Your task to perform on an android device: allow cookies in the chrome app Image 0: 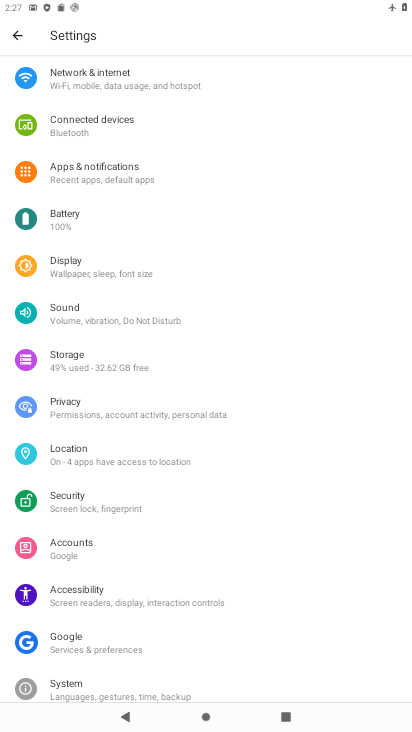
Step 0: drag from (108, 560) to (125, 267)
Your task to perform on an android device: allow cookies in the chrome app Image 1: 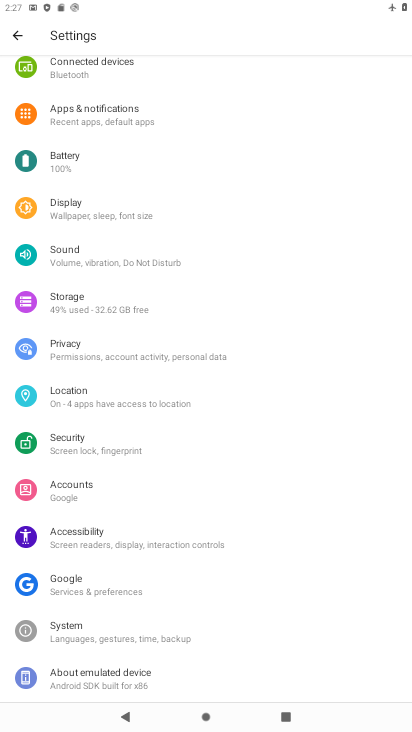
Step 1: press home button
Your task to perform on an android device: allow cookies in the chrome app Image 2: 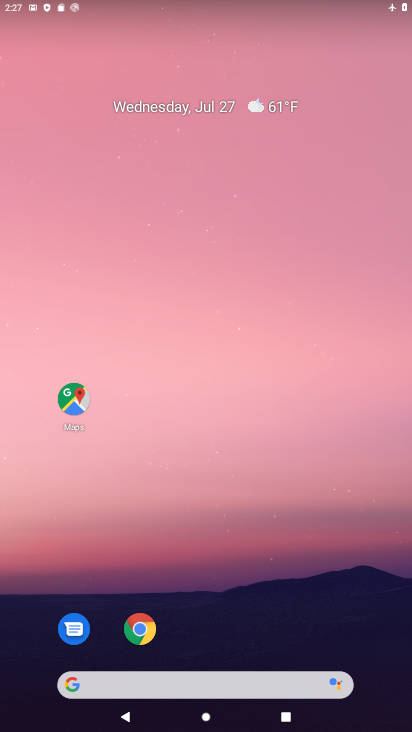
Step 2: drag from (203, 642) to (266, 273)
Your task to perform on an android device: allow cookies in the chrome app Image 3: 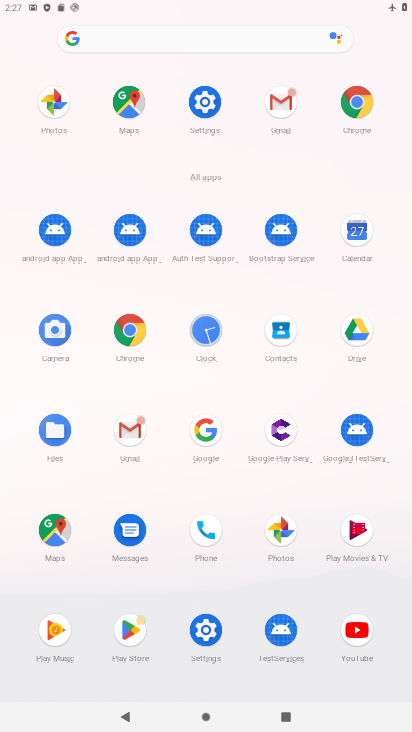
Step 3: click (131, 311)
Your task to perform on an android device: allow cookies in the chrome app Image 4: 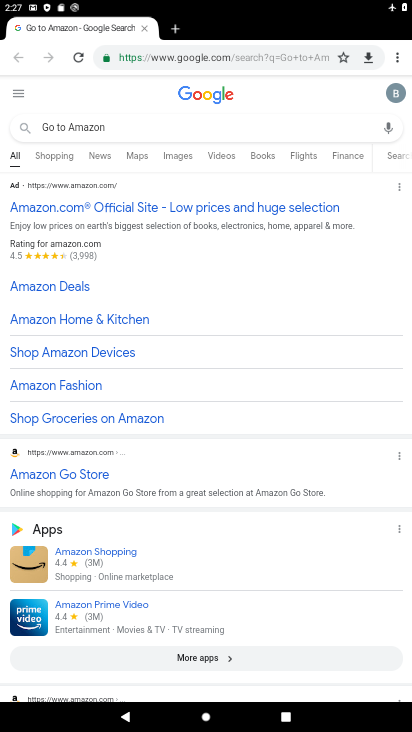
Step 4: click (391, 60)
Your task to perform on an android device: allow cookies in the chrome app Image 5: 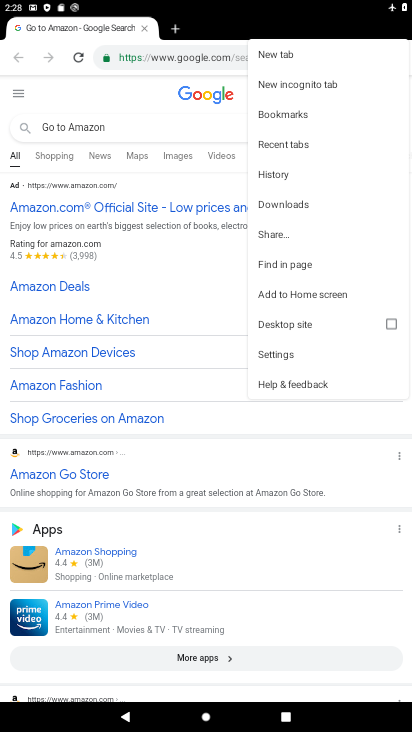
Step 5: click (283, 350)
Your task to perform on an android device: allow cookies in the chrome app Image 6: 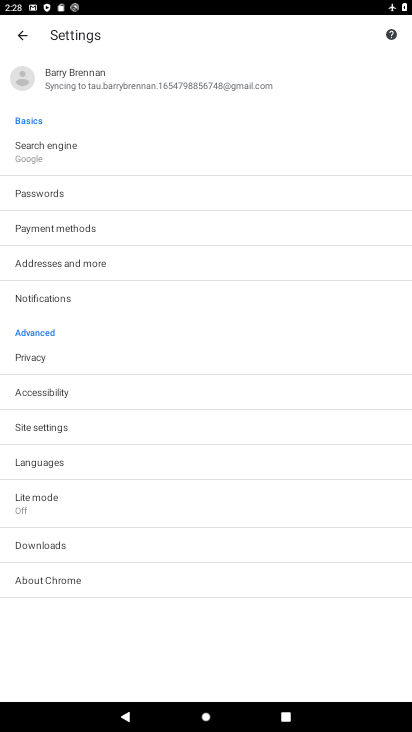
Step 6: click (79, 430)
Your task to perform on an android device: allow cookies in the chrome app Image 7: 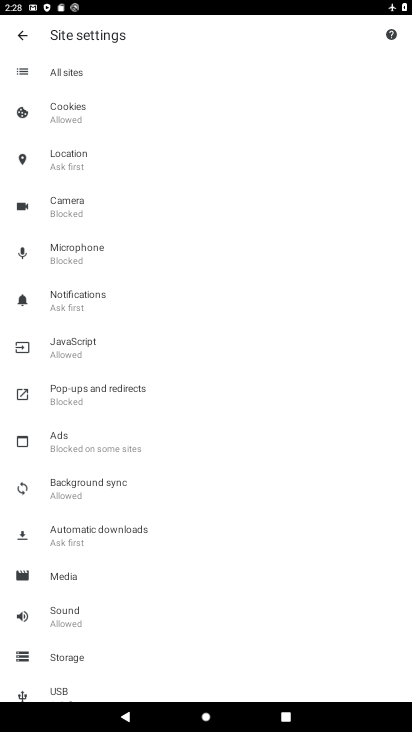
Step 7: click (73, 107)
Your task to perform on an android device: allow cookies in the chrome app Image 8: 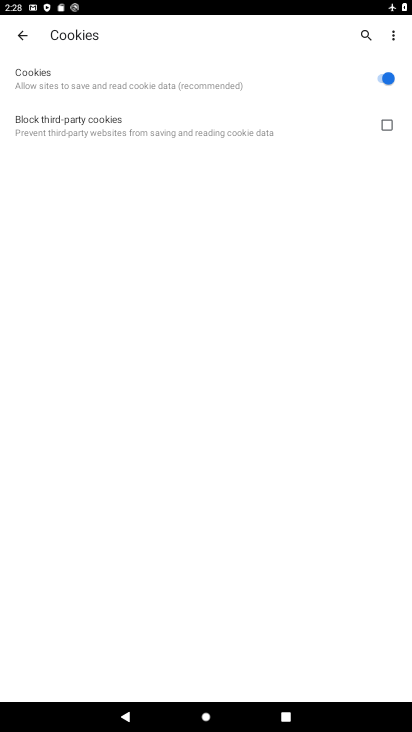
Step 8: task complete